Your task to perform on an android device: Turn off the flashlight Image 0: 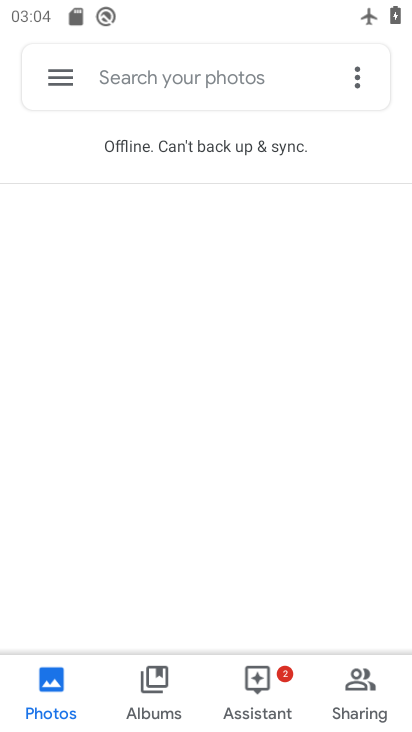
Step 0: press home button
Your task to perform on an android device: Turn off the flashlight Image 1: 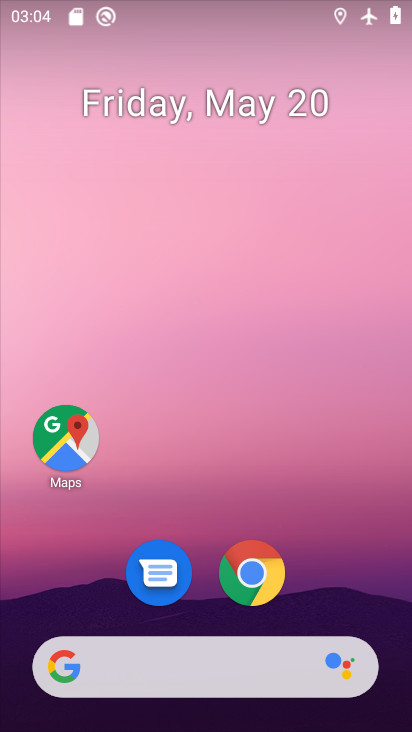
Step 1: drag from (190, 611) to (203, 189)
Your task to perform on an android device: Turn off the flashlight Image 2: 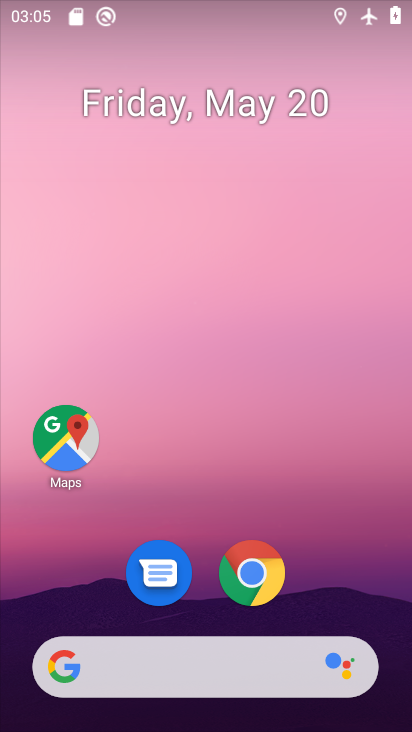
Step 2: drag from (204, 612) to (231, 233)
Your task to perform on an android device: Turn off the flashlight Image 3: 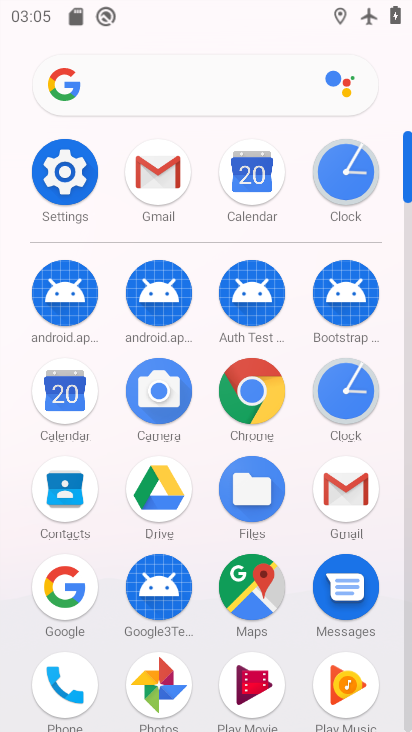
Step 3: click (68, 173)
Your task to perform on an android device: Turn off the flashlight Image 4: 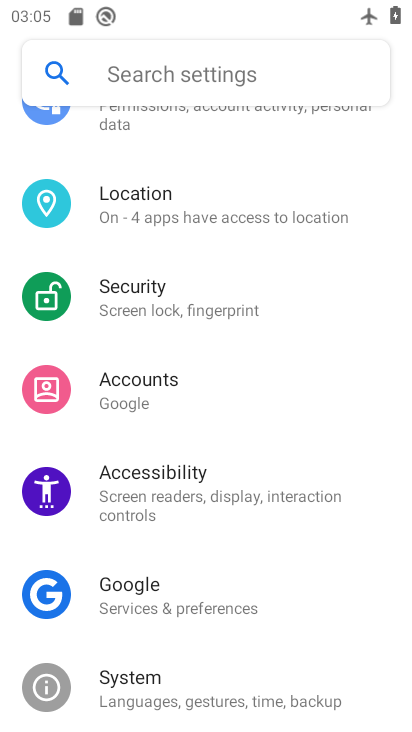
Step 4: task complete